Your task to perform on an android device: Open Yahoo.com Image 0: 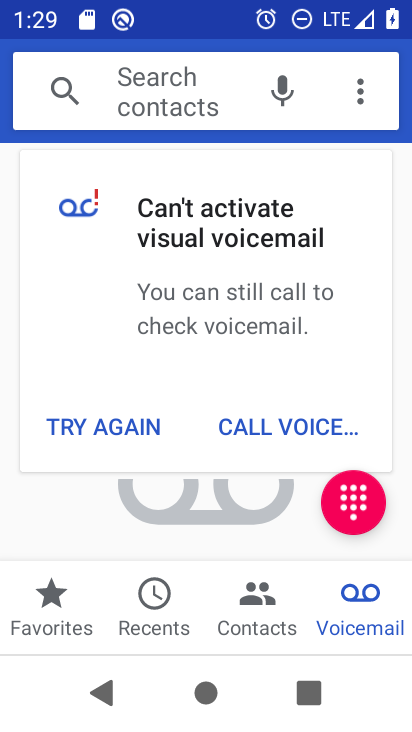
Step 0: press home button
Your task to perform on an android device: Open Yahoo.com Image 1: 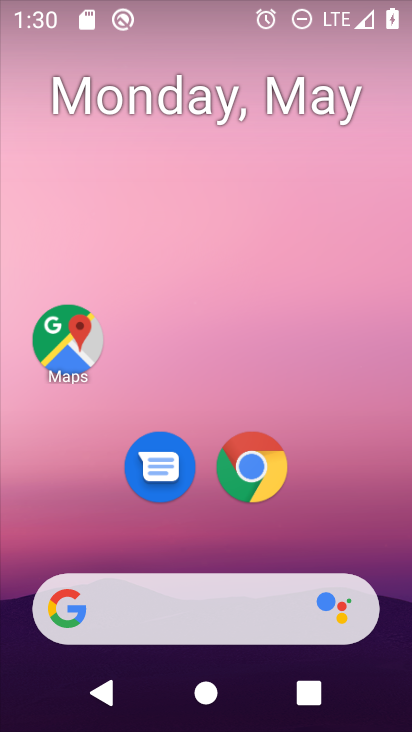
Step 1: click (252, 476)
Your task to perform on an android device: Open Yahoo.com Image 2: 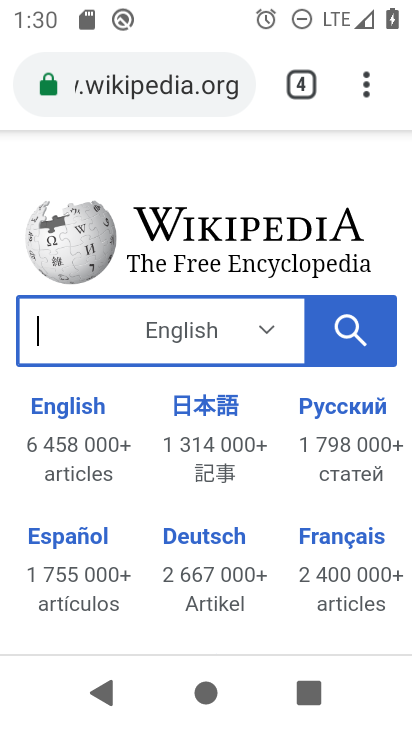
Step 2: click (134, 84)
Your task to perform on an android device: Open Yahoo.com Image 3: 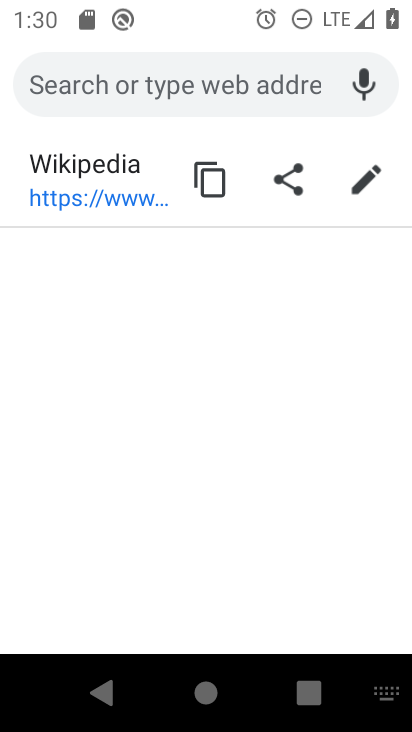
Step 3: type "yahoo.com"
Your task to perform on an android device: Open Yahoo.com Image 4: 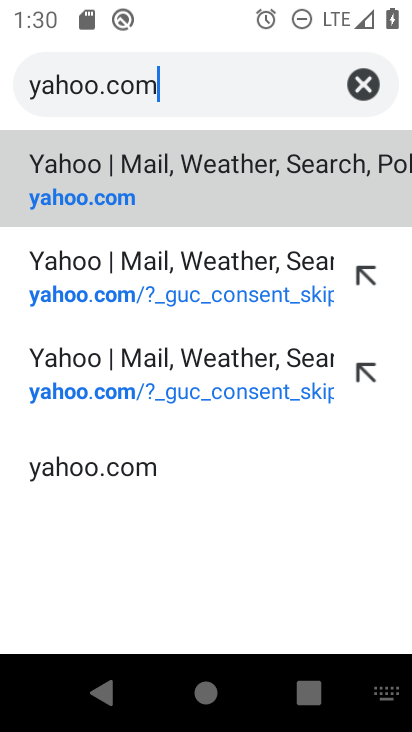
Step 4: click (93, 206)
Your task to perform on an android device: Open Yahoo.com Image 5: 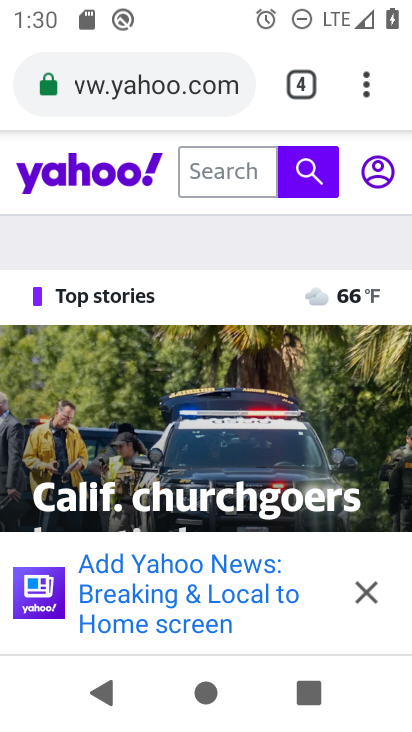
Step 5: task complete